Your task to perform on an android device: Open ESPN.com Image 0: 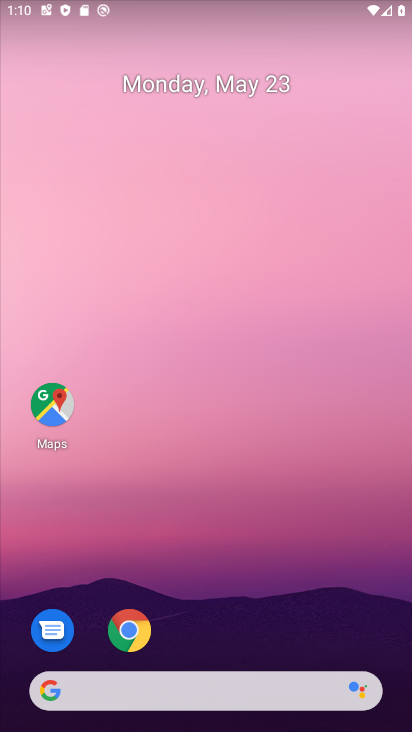
Step 0: drag from (208, 558) to (226, 73)
Your task to perform on an android device: Open ESPN.com Image 1: 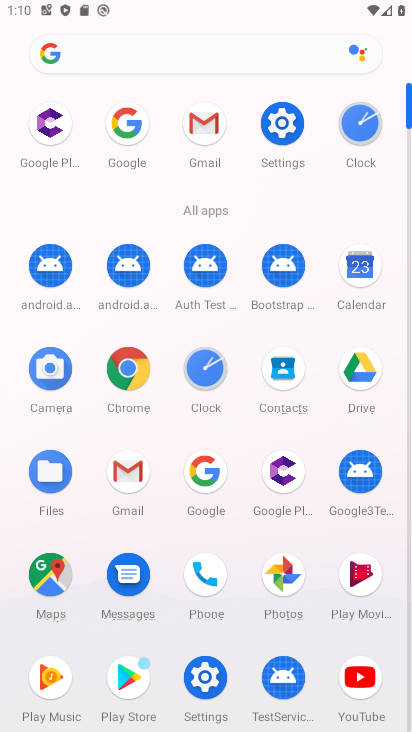
Step 1: click (131, 129)
Your task to perform on an android device: Open ESPN.com Image 2: 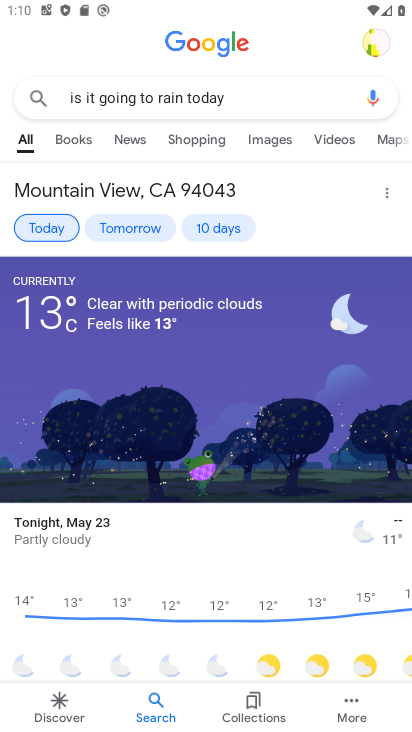
Step 2: click (254, 96)
Your task to perform on an android device: Open ESPN.com Image 3: 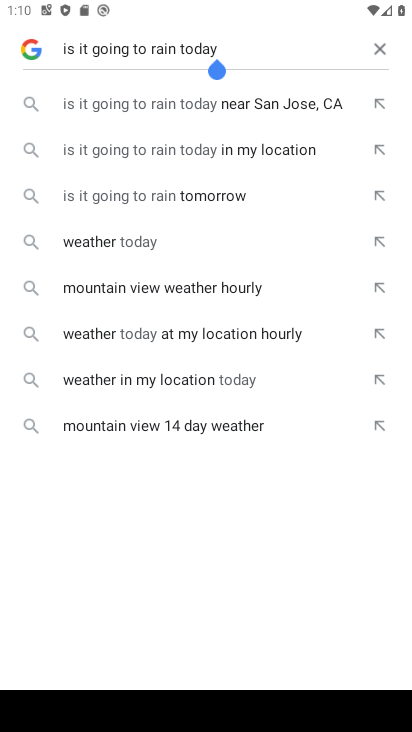
Step 3: click (373, 51)
Your task to perform on an android device: Open ESPN.com Image 4: 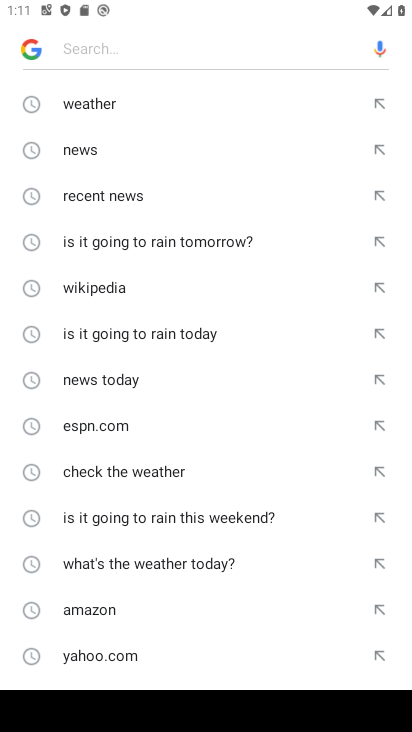
Step 4: click (94, 423)
Your task to perform on an android device: Open ESPN.com Image 5: 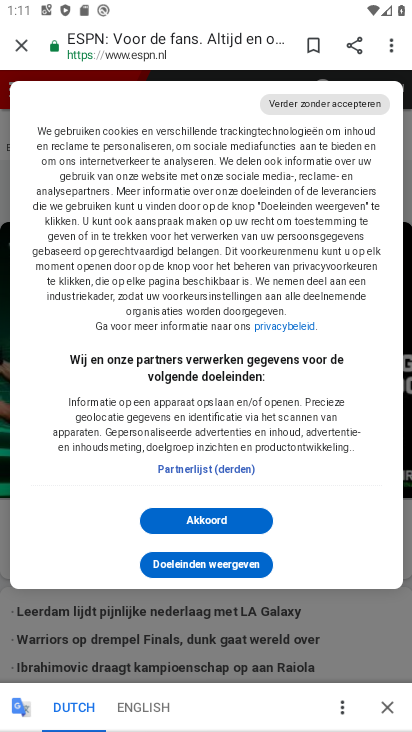
Step 5: task complete